Your task to perform on an android device: change your default location settings in chrome Image 0: 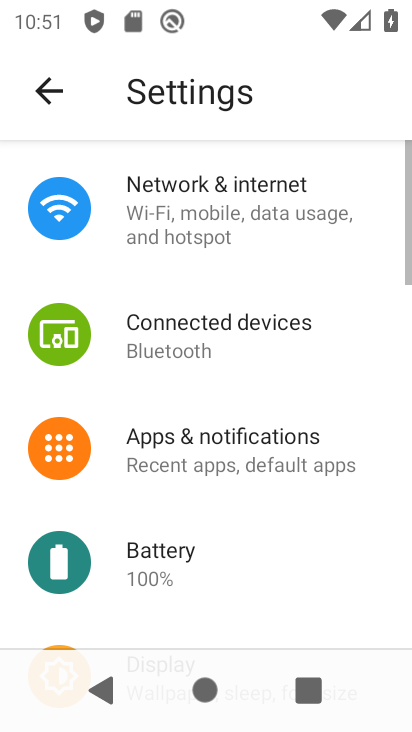
Step 0: press home button
Your task to perform on an android device: change your default location settings in chrome Image 1: 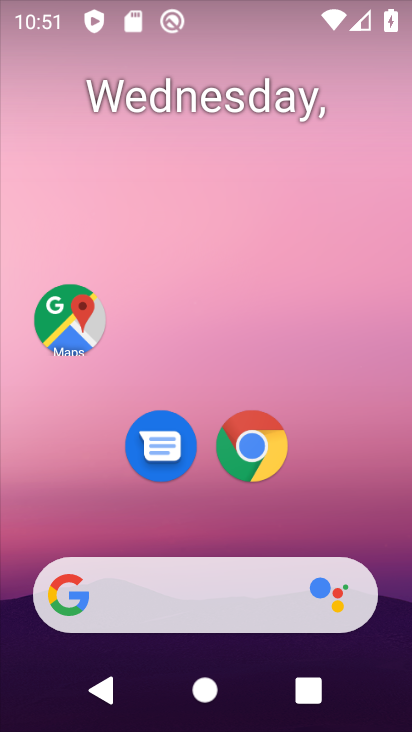
Step 1: drag from (382, 544) to (385, 135)
Your task to perform on an android device: change your default location settings in chrome Image 2: 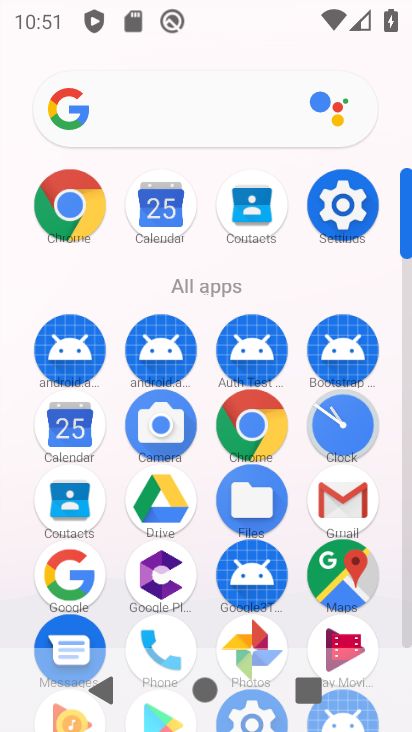
Step 2: click (258, 435)
Your task to perform on an android device: change your default location settings in chrome Image 3: 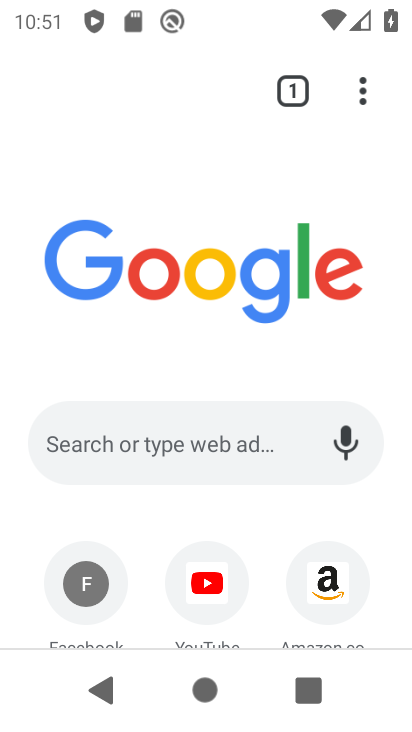
Step 3: click (362, 103)
Your task to perform on an android device: change your default location settings in chrome Image 4: 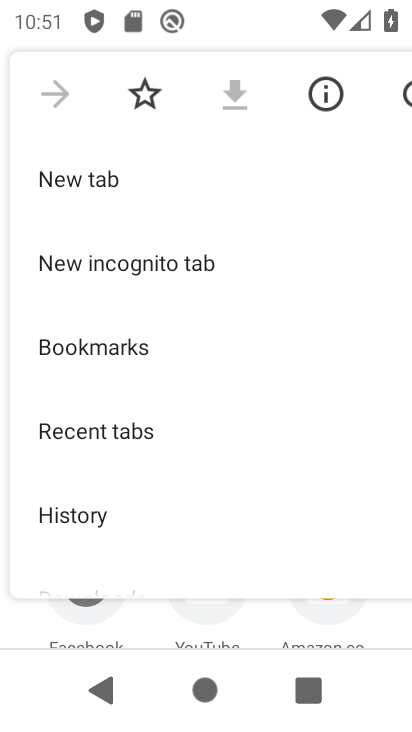
Step 4: drag from (360, 440) to (324, 312)
Your task to perform on an android device: change your default location settings in chrome Image 5: 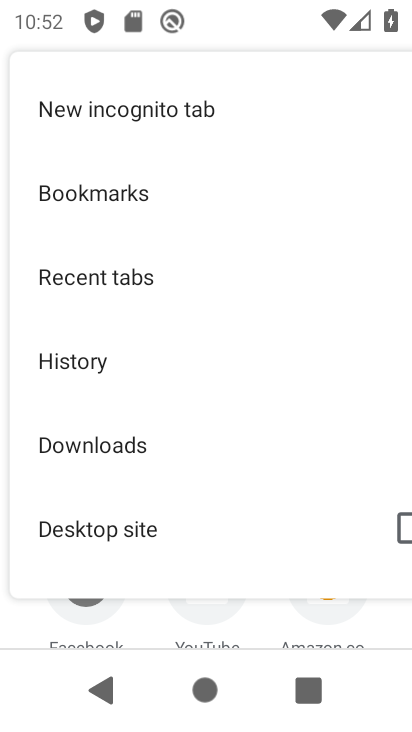
Step 5: drag from (282, 460) to (303, 293)
Your task to perform on an android device: change your default location settings in chrome Image 6: 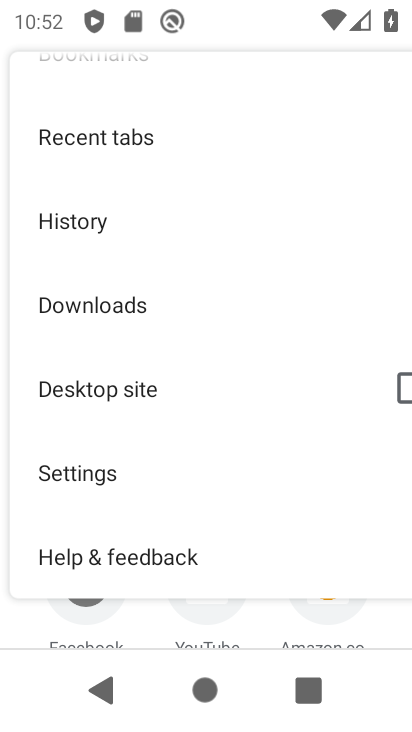
Step 6: click (117, 481)
Your task to perform on an android device: change your default location settings in chrome Image 7: 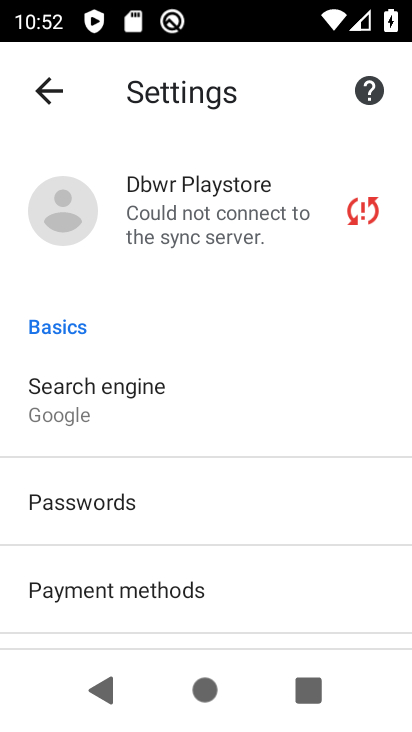
Step 7: drag from (265, 513) to (284, 415)
Your task to perform on an android device: change your default location settings in chrome Image 8: 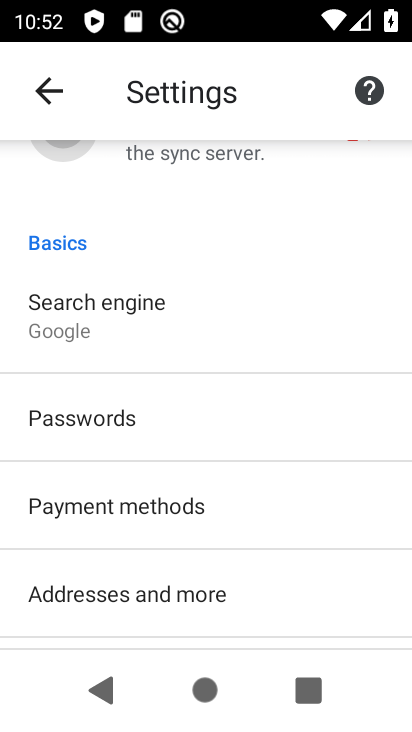
Step 8: drag from (295, 529) to (315, 436)
Your task to perform on an android device: change your default location settings in chrome Image 9: 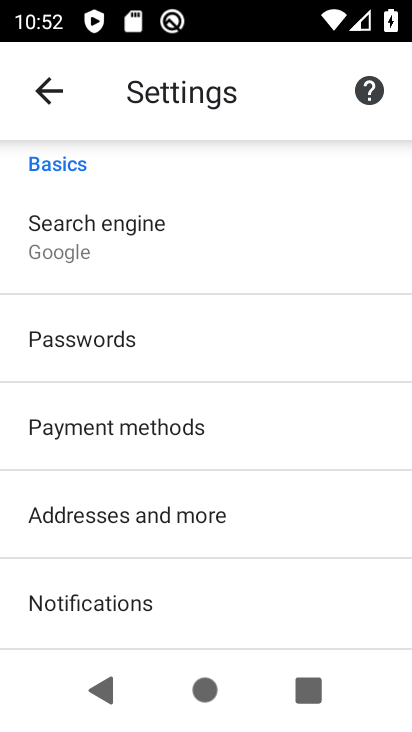
Step 9: drag from (329, 496) to (326, 440)
Your task to perform on an android device: change your default location settings in chrome Image 10: 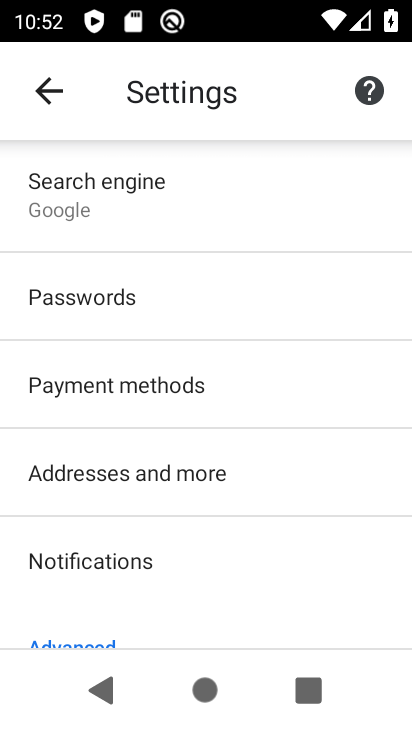
Step 10: drag from (314, 547) to (344, 452)
Your task to perform on an android device: change your default location settings in chrome Image 11: 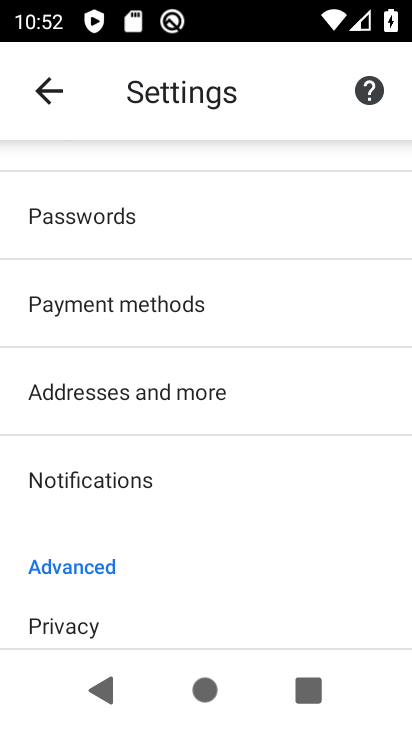
Step 11: drag from (313, 531) to (306, 328)
Your task to perform on an android device: change your default location settings in chrome Image 12: 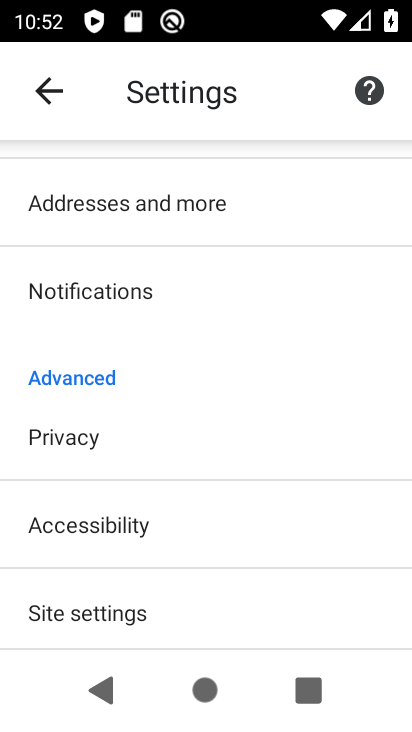
Step 12: drag from (272, 540) to (297, 381)
Your task to perform on an android device: change your default location settings in chrome Image 13: 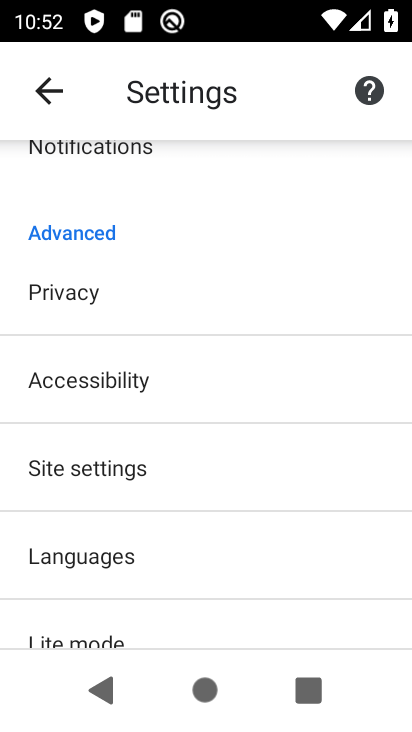
Step 13: click (270, 474)
Your task to perform on an android device: change your default location settings in chrome Image 14: 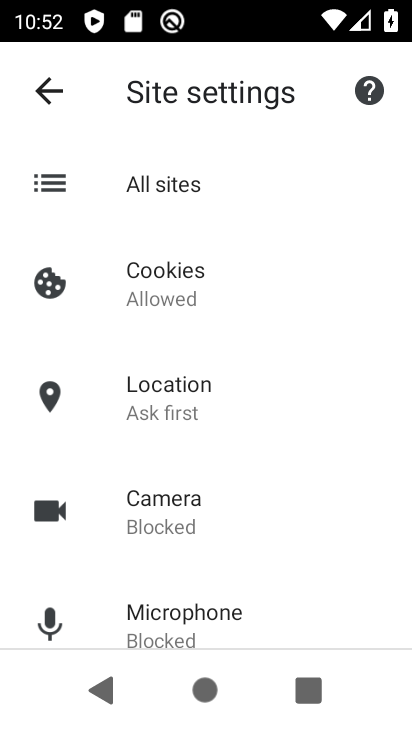
Step 14: click (238, 413)
Your task to perform on an android device: change your default location settings in chrome Image 15: 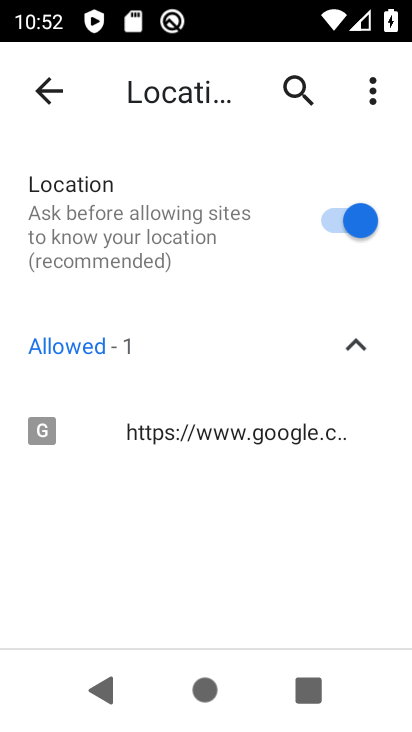
Step 15: click (352, 221)
Your task to perform on an android device: change your default location settings in chrome Image 16: 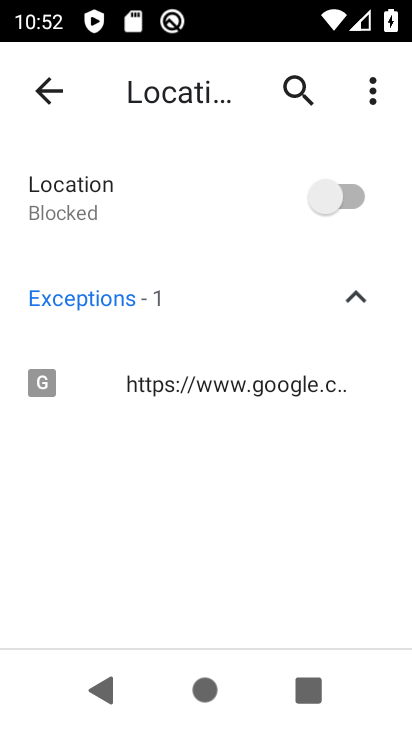
Step 16: task complete